Your task to perform on an android device: toggle show notifications on the lock screen Image 0: 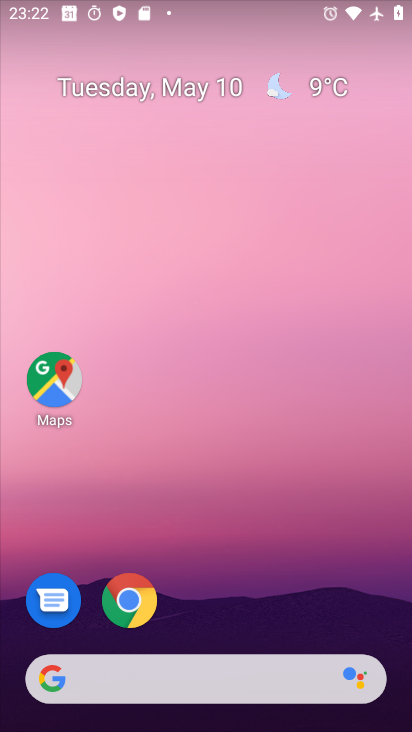
Step 0: drag from (323, 540) to (329, 59)
Your task to perform on an android device: toggle show notifications on the lock screen Image 1: 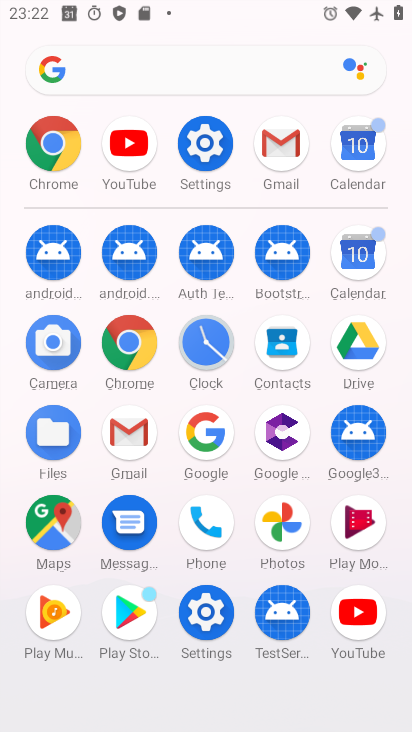
Step 1: click (199, 149)
Your task to perform on an android device: toggle show notifications on the lock screen Image 2: 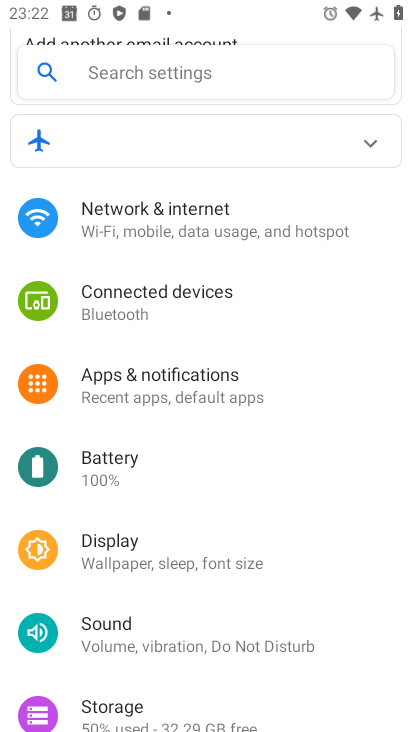
Step 2: click (172, 390)
Your task to perform on an android device: toggle show notifications on the lock screen Image 3: 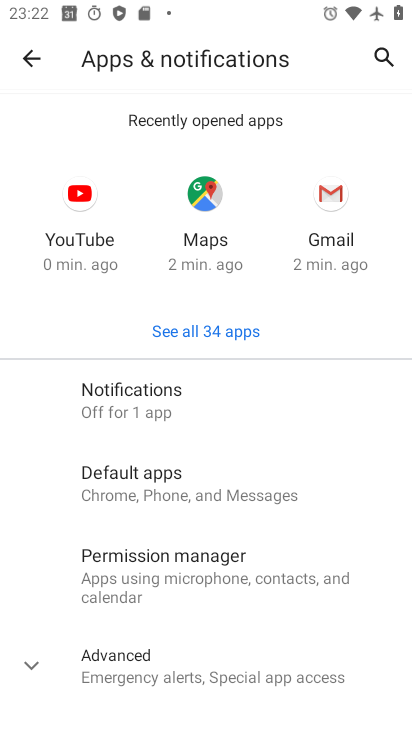
Step 3: click (146, 421)
Your task to perform on an android device: toggle show notifications on the lock screen Image 4: 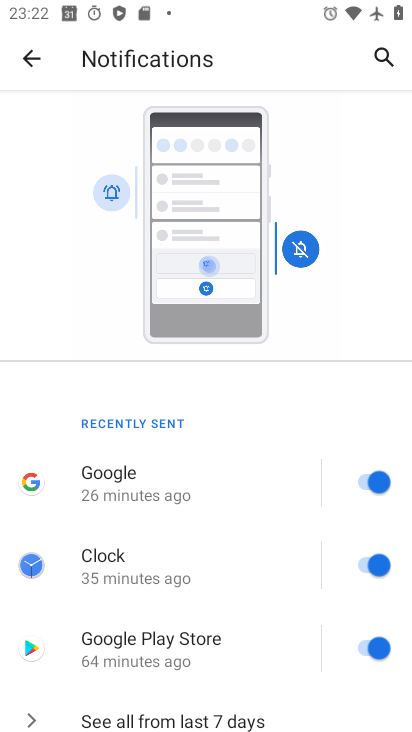
Step 4: drag from (181, 604) to (220, 179)
Your task to perform on an android device: toggle show notifications on the lock screen Image 5: 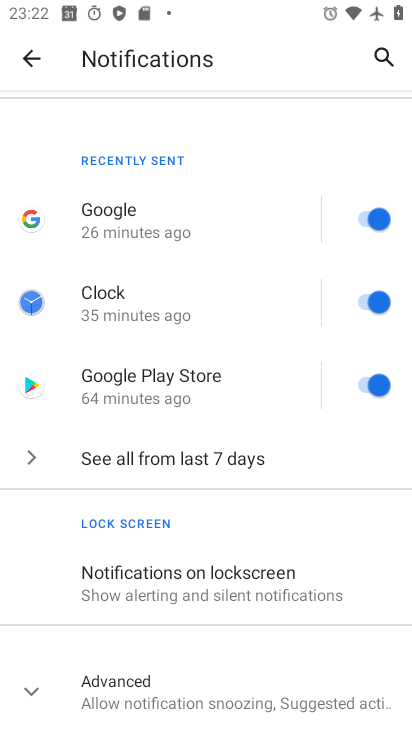
Step 5: click (127, 577)
Your task to perform on an android device: toggle show notifications on the lock screen Image 6: 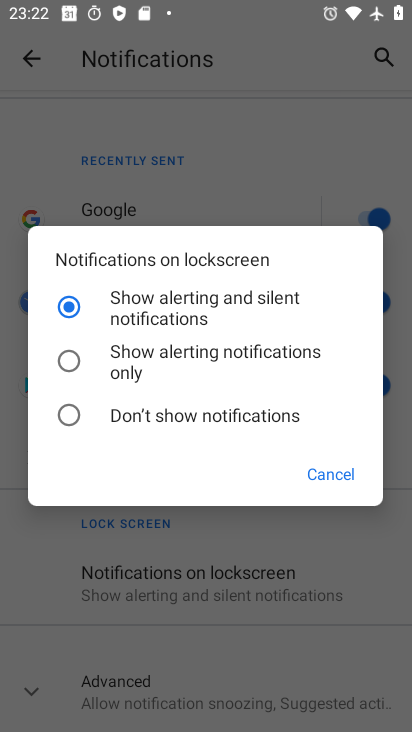
Step 6: click (73, 358)
Your task to perform on an android device: toggle show notifications on the lock screen Image 7: 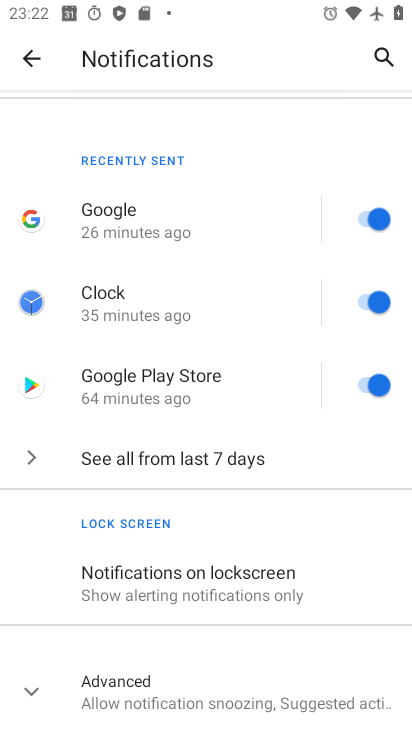
Step 7: click (205, 603)
Your task to perform on an android device: toggle show notifications on the lock screen Image 8: 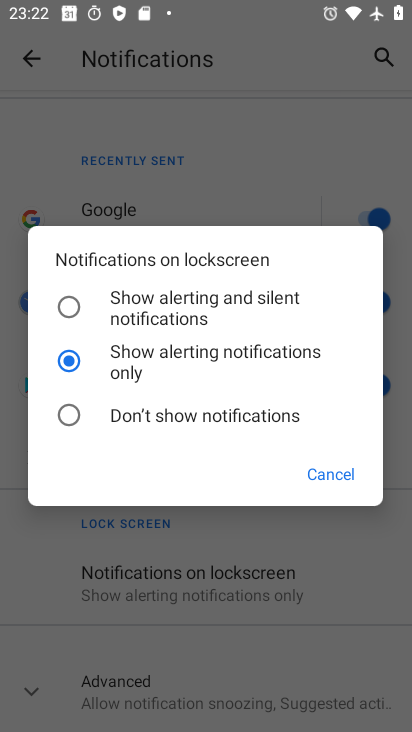
Step 8: click (85, 412)
Your task to perform on an android device: toggle show notifications on the lock screen Image 9: 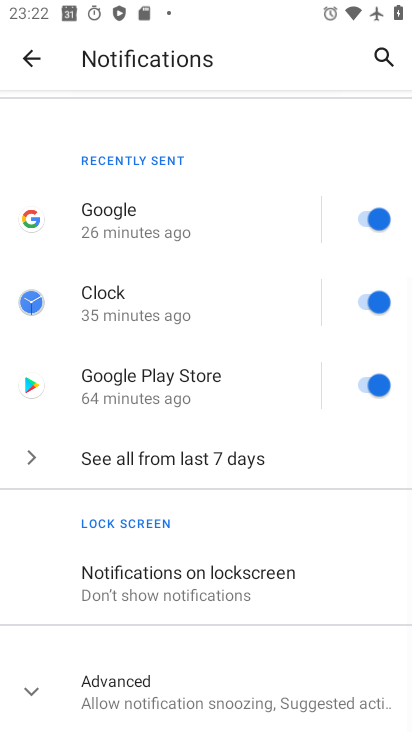
Step 9: task complete